Your task to perform on an android device: Open privacy settings Image 0: 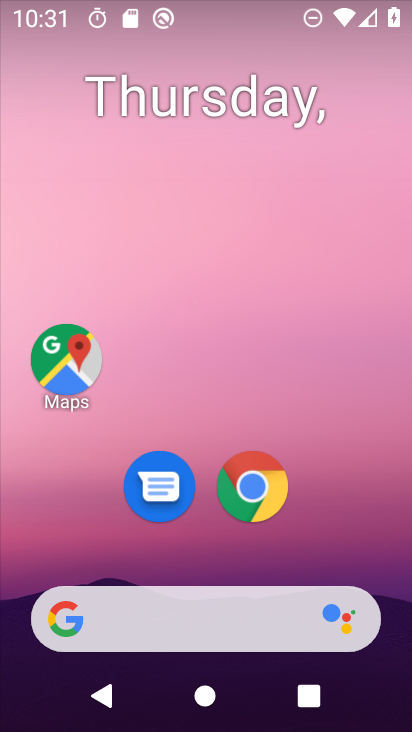
Step 0: drag from (176, 553) to (267, 60)
Your task to perform on an android device: Open privacy settings Image 1: 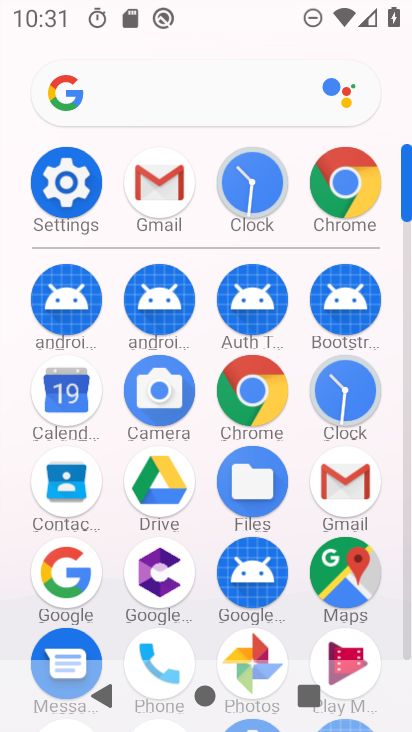
Step 1: click (76, 190)
Your task to perform on an android device: Open privacy settings Image 2: 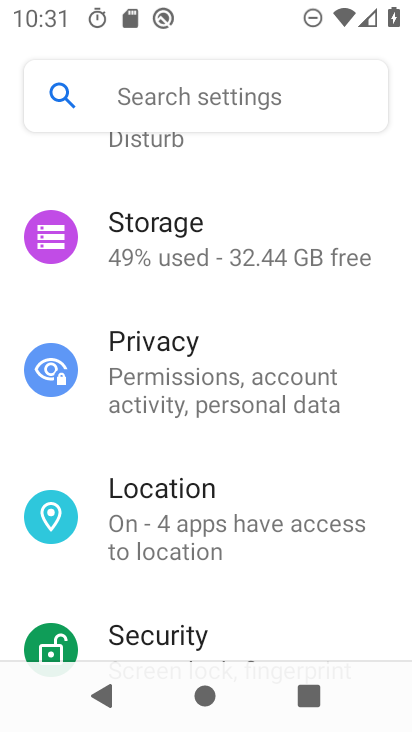
Step 2: click (158, 371)
Your task to perform on an android device: Open privacy settings Image 3: 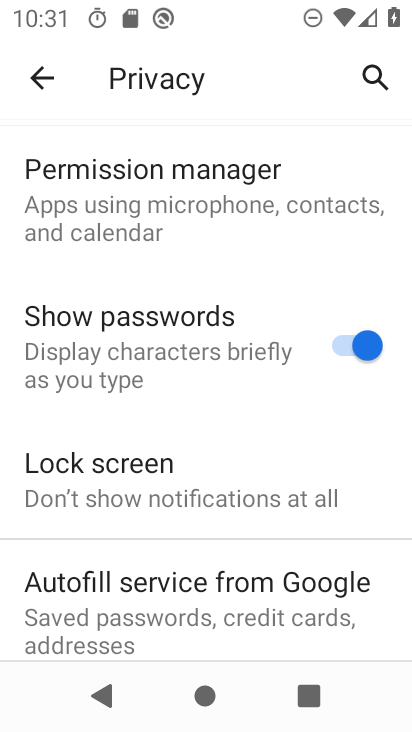
Step 3: task complete